Your task to perform on an android device: Search for seafood restaurants on Google Maps Image 0: 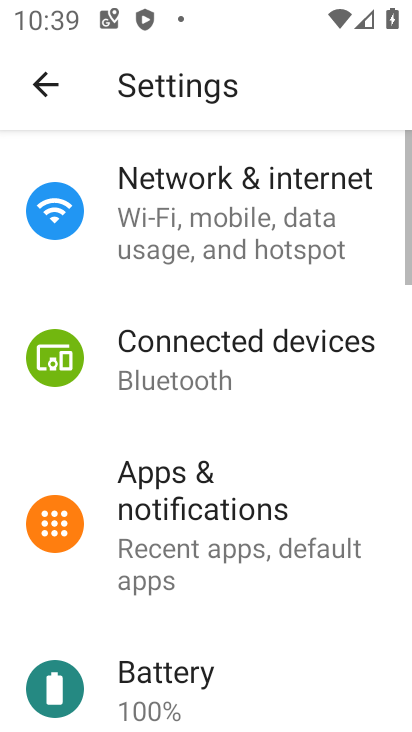
Step 0: press home button
Your task to perform on an android device: Search for seafood restaurants on Google Maps Image 1: 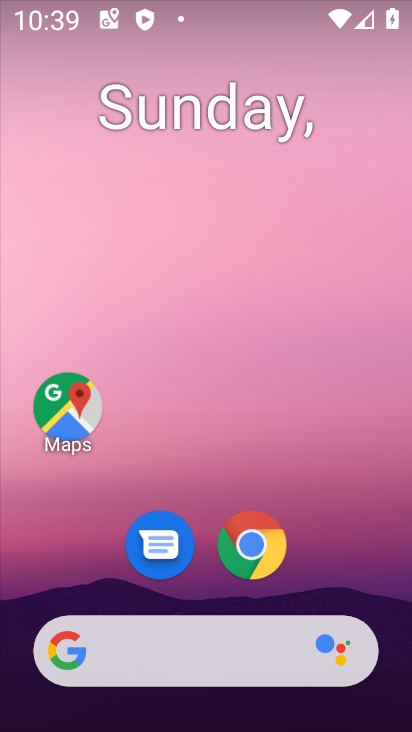
Step 1: click (71, 409)
Your task to perform on an android device: Search for seafood restaurants on Google Maps Image 2: 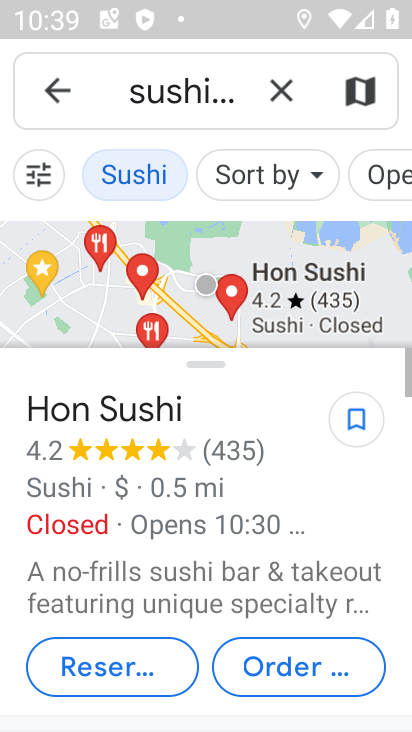
Step 2: click (278, 83)
Your task to perform on an android device: Search for seafood restaurants on Google Maps Image 3: 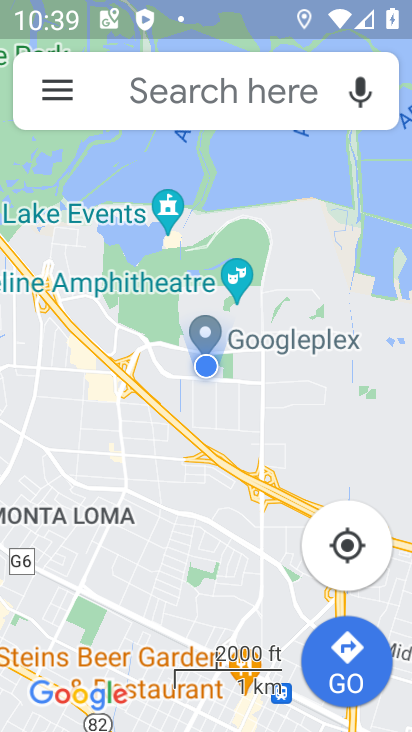
Step 3: click (224, 84)
Your task to perform on an android device: Search for seafood restaurants on Google Maps Image 4: 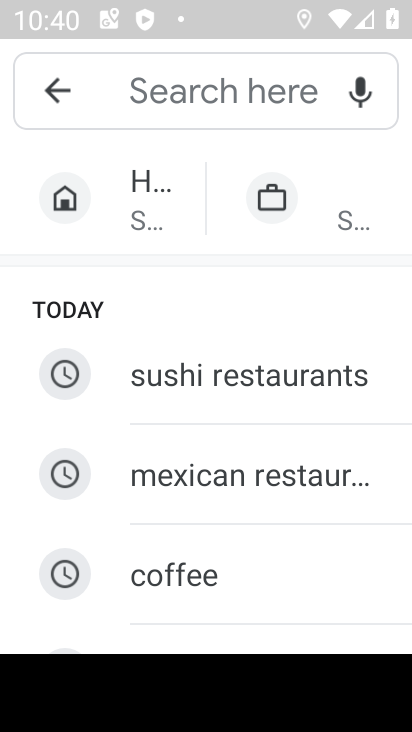
Step 4: type "seafood restaurants"
Your task to perform on an android device: Search for seafood restaurants on Google Maps Image 5: 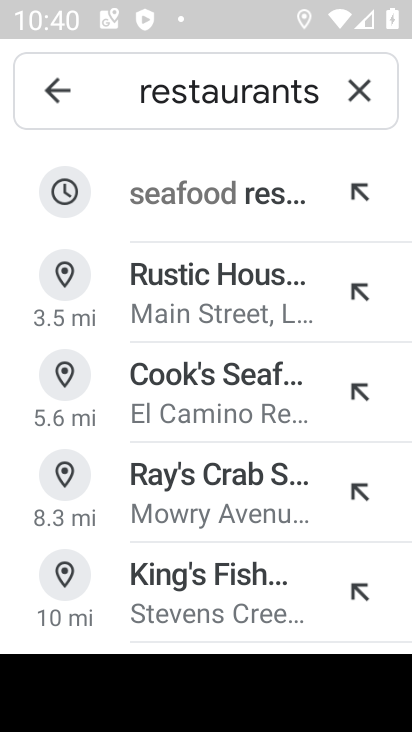
Step 5: click (255, 214)
Your task to perform on an android device: Search for seafood restaurants on Google Maps Image 6: 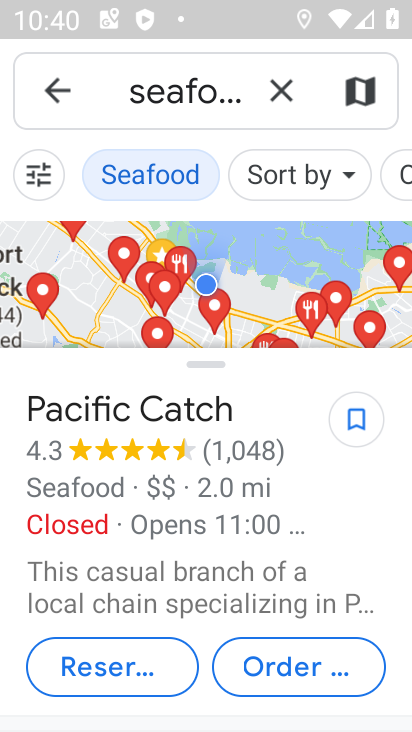
Step 6: task complete